Your task to perform on an android device: move a message to another label in the gmail app Image 0: 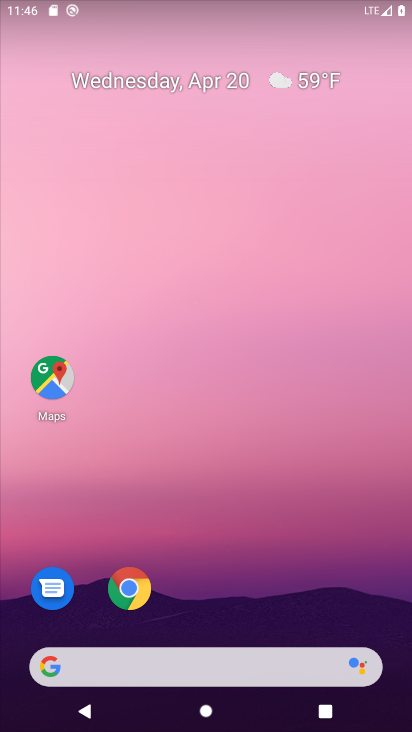
Step 0: drag from (231, 542) to (219, 62)
Your task to perform on an android device: move a message to another label in the gmail app Image 1: 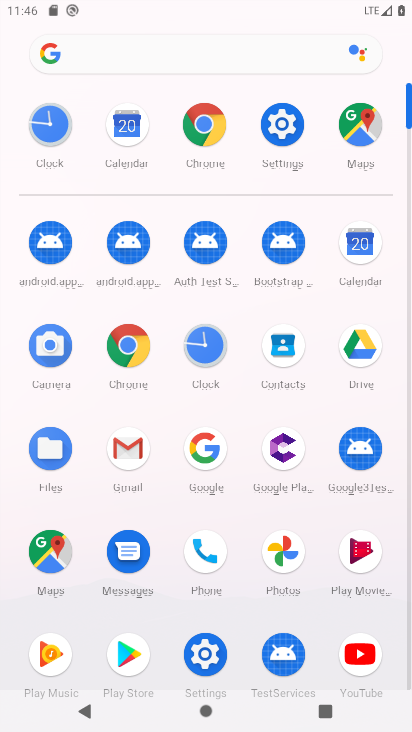
Step 1: click (134, 445)
Your task to perform on an android device: move a message to another label in the gmail app Image 2: 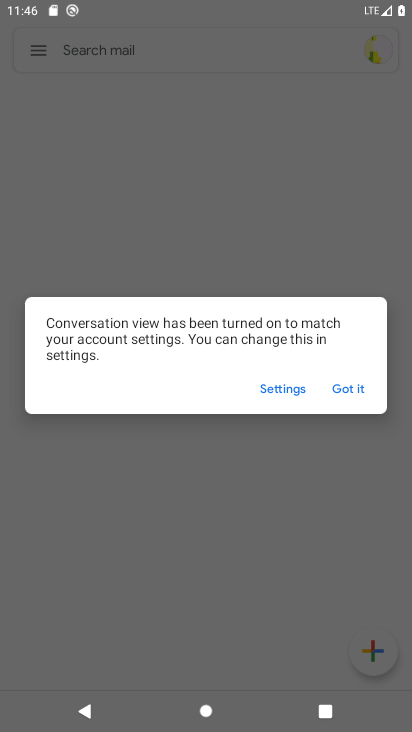
Step 2: click (358, 390)
Your task to perform on an android device: move a message to another label in the gmail app Image 3: 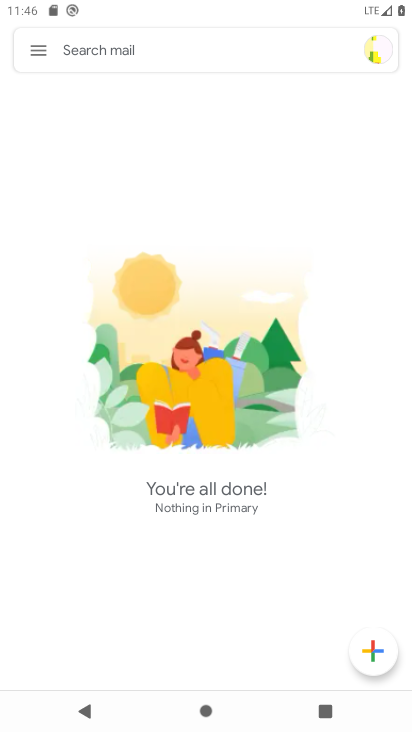
Step 3: click (42, 51)
Your task to perform on an android device: move a message to another label in the gmail app Image 4: 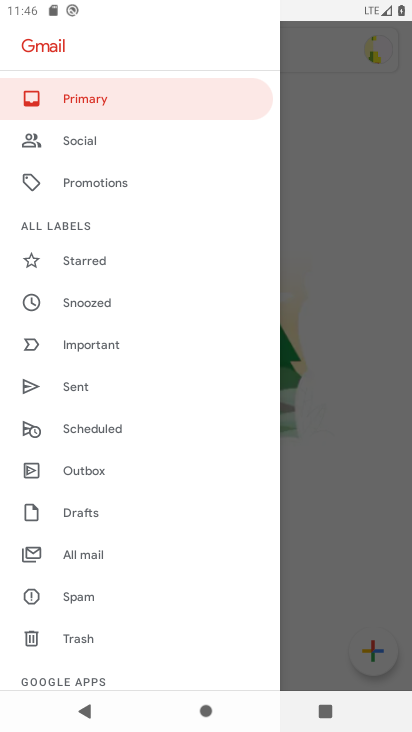
Step 4: click (87, 555)
Your task to perform on an android device: move a message to another label in the gmail app Image 5: 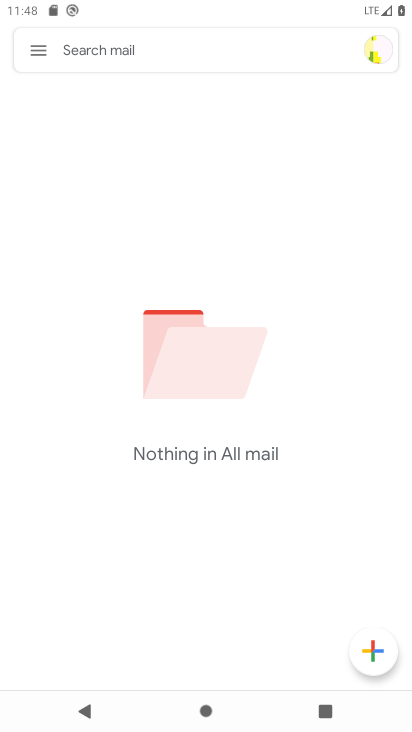
Step 5: task complete